Your task to perform on an android device: Open Yahoo.com Image 0: 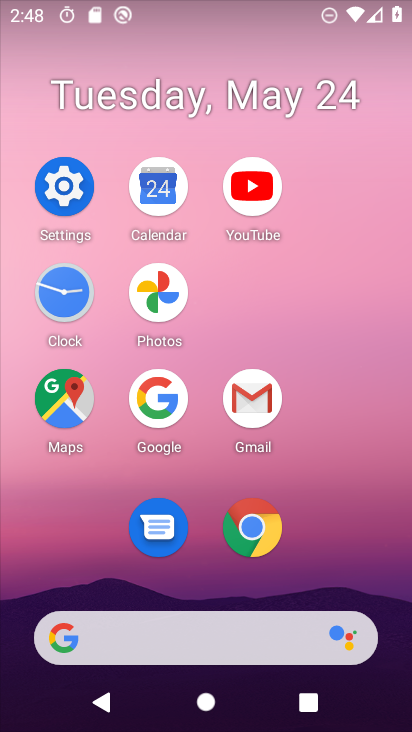
Step 0: click (264, 517)
Your task to perform on an android device: Open Yahoo.com Image 1: 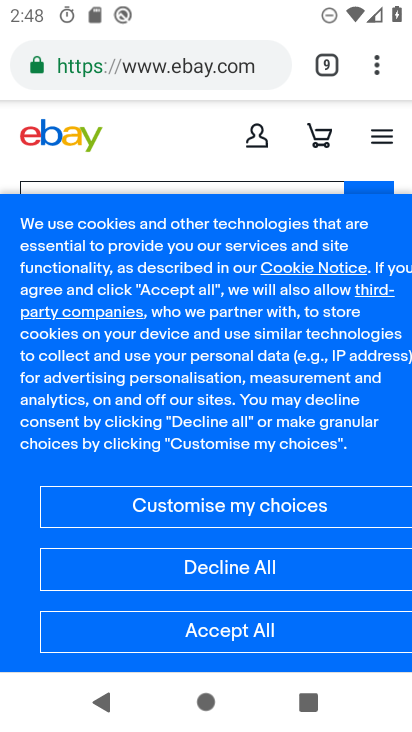
Step 1: click (331, 61)
Your task to perform on an android device: Open Yahoo.com Image 2: 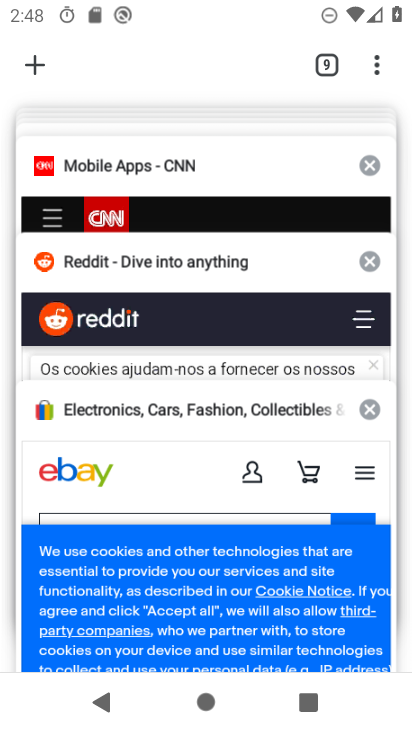
Step 2: drag from (215, 447) to (168, 115)
Your task to perform on an android device: Open Yahoo.com Image 3: 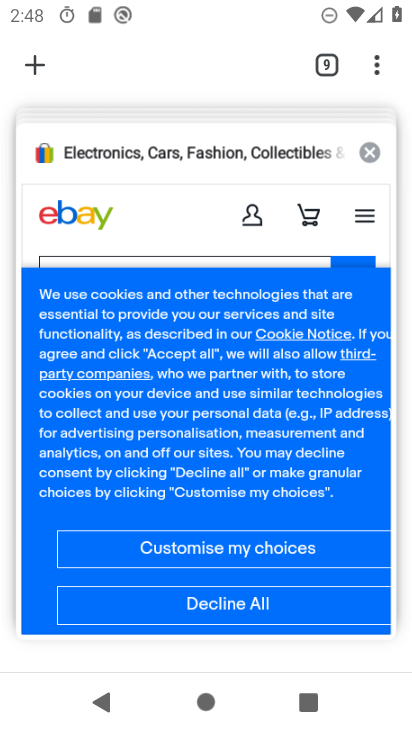
Step 3: drag from (170, 195) to (217, 595)
Your task to perform on an android device: Open Yahoo.com Image 4: 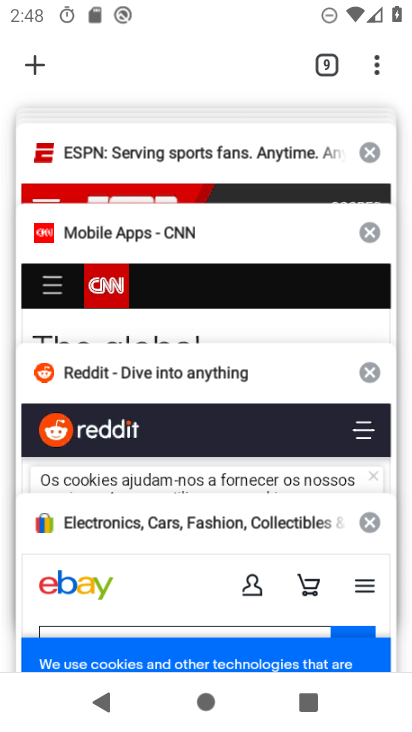
Step 4: drag from (181, 179) to (209, 554)
Your task to perform on an android device: Open Yahoo.com Image 5: 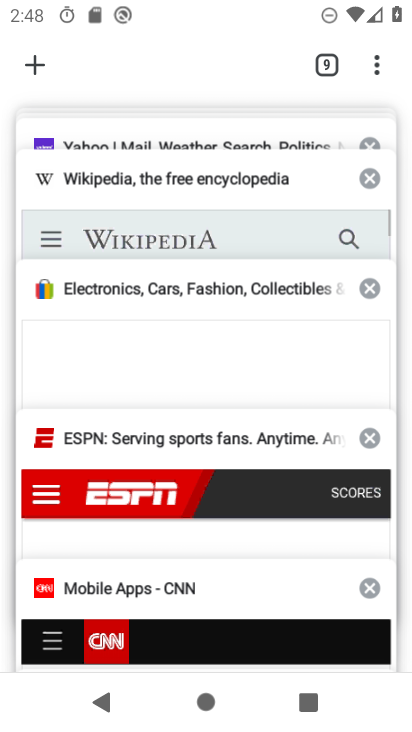
Step 5: drag from (217, 227) to (230, 484)
Your task to perform on an android device: Open Yahoo.com Image 6: 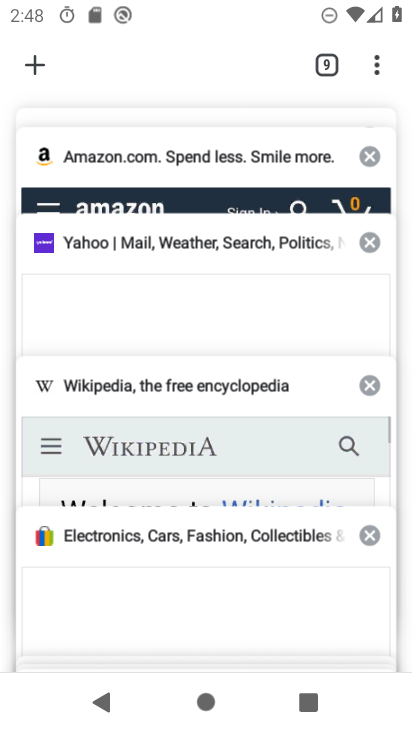
Step 6: drag from (142, 311) to (172, 543)
Your task to perform on an android device: Open Yahoo.com Image 7: 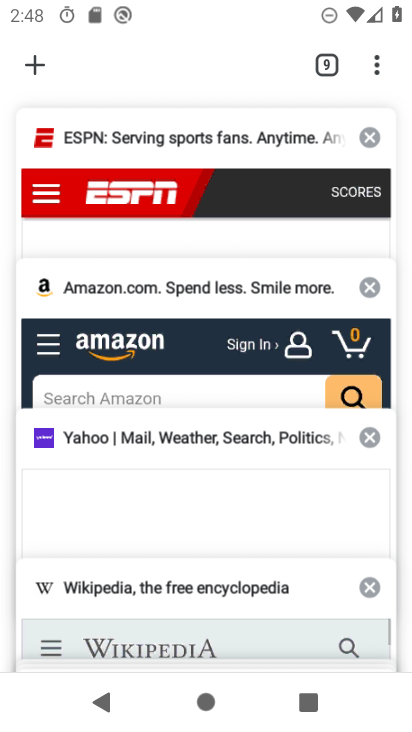
Step 7: drag from (202, 477) to (177, 207)
Your task to perform on an android device: Open Yahoo.com Image 8: 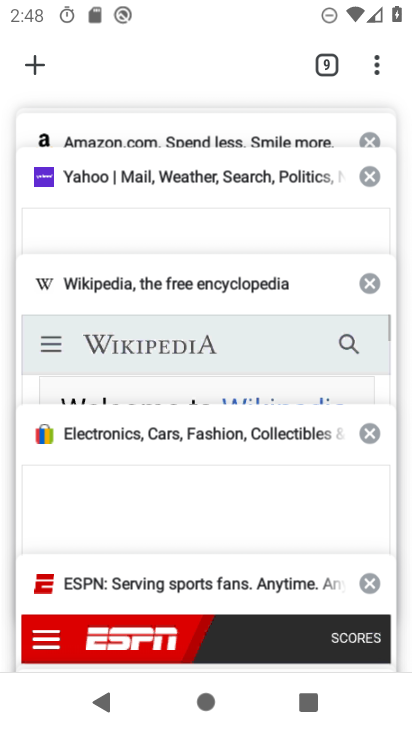
Step 8: click (137, 164)
Your task to perform on an android device: Open Yahoo.com Image 9: 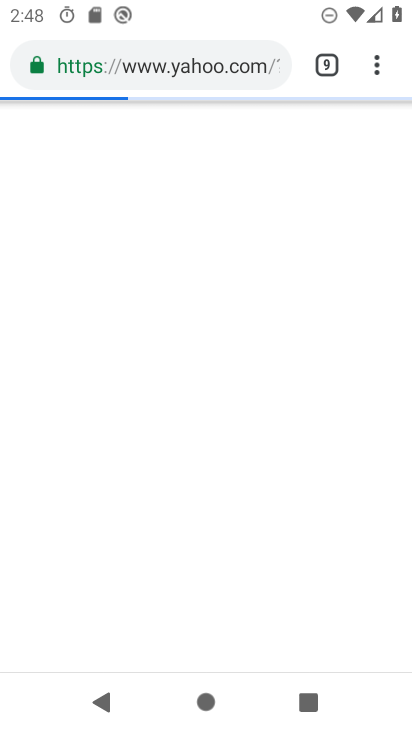
Step 9: task complete